Your task to perform on an android device: What's the weather going to be this weekend? Image 0: 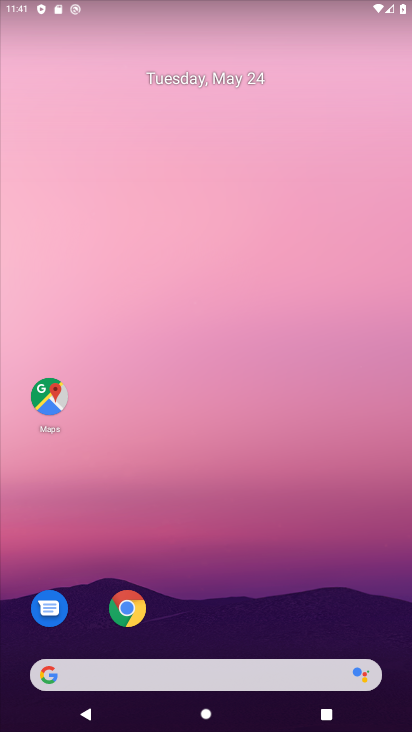
Step 0: drag from (0, 500) to (381, 437)
Your task to perform on an android device: What's the weather going to be this weekend? Image 1: 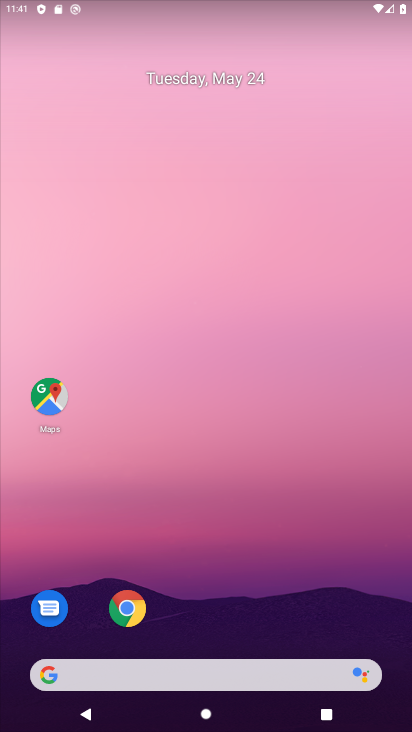
Step 1: drag from (0, 493) to (386, 252)
Your task to perform on an android device: What's the weather going to be this weekend? Image 2: 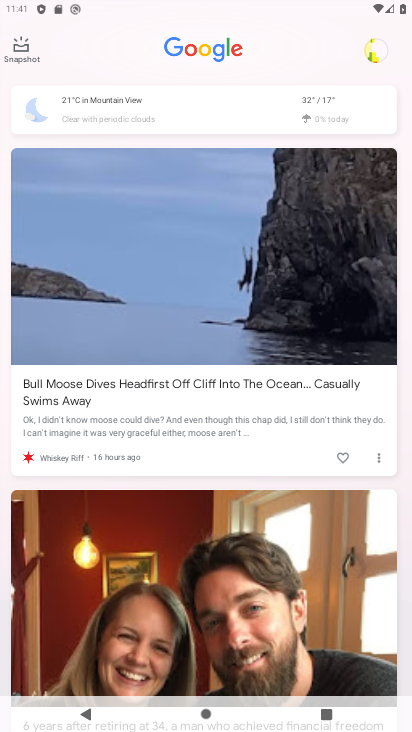
Step 2: click (284, 103)
Your task to perform on an android device: What's the weather going to be this weekend? Image 3: 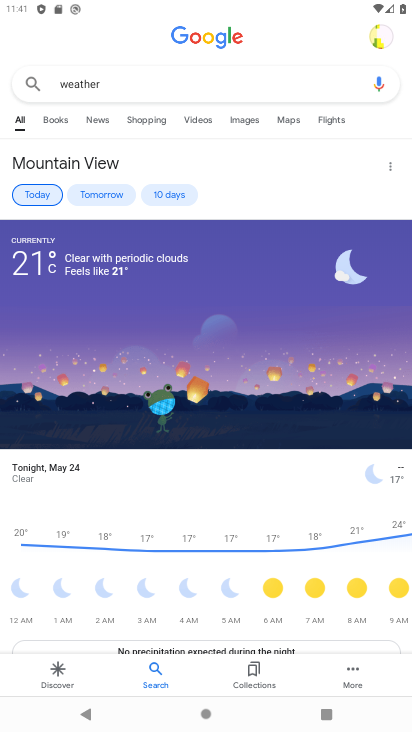
Step 3: drag from (116, 630) to (209, 296)
Your task to perform on an android device: What's the weather going to be this weekend? Image 4: 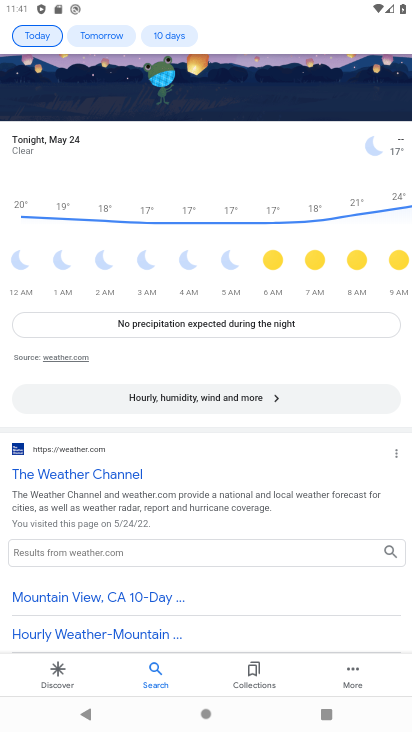
Step 4: click (117, 476)
Your task to perform on an android device: What's the weather going to be this weekend? Image 5: 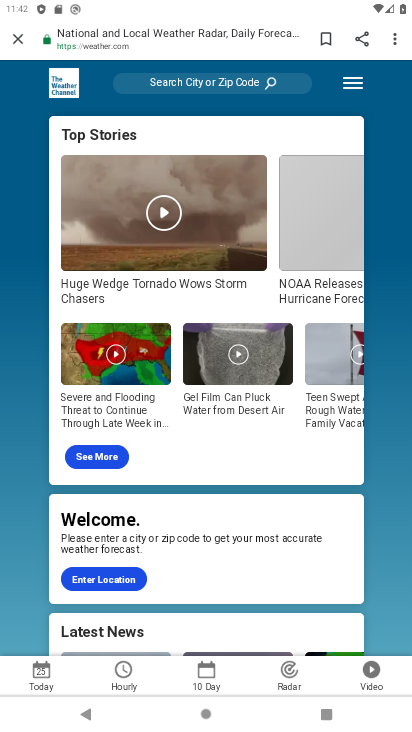
Step 5: click (211, 669)
Your task to perform on an android device: What's the weather going to be this weekend? Image 6: 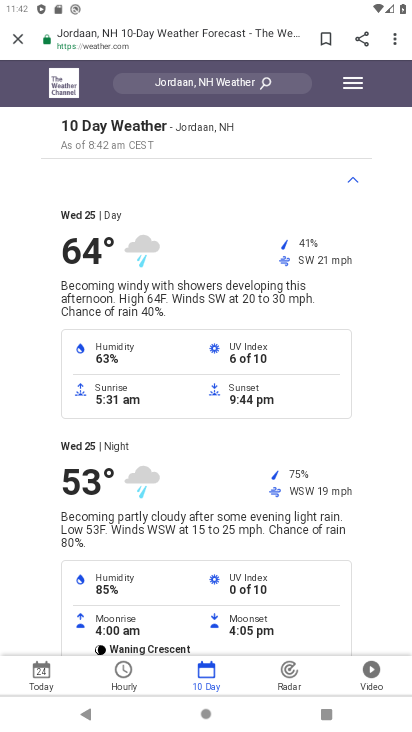
Step 6: drag from (141, 634) to (230, 268)
Your task to perform on an android device: What's the weather going to be this weekend? Image 7: 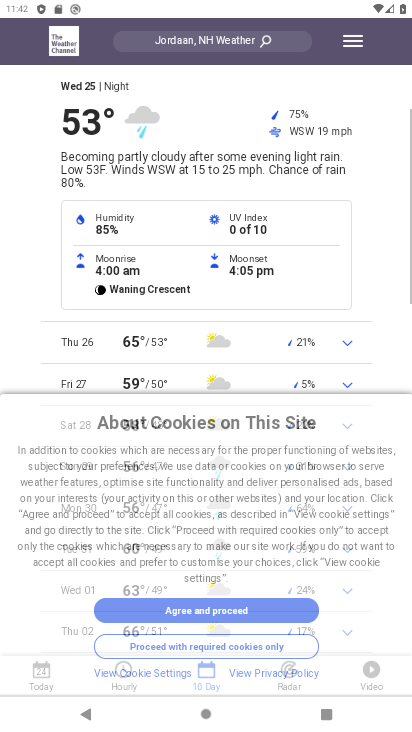
Step 7: click (228, 618)
Your task to perform on an android device: What's the weather going to be this weekend? Image 8: 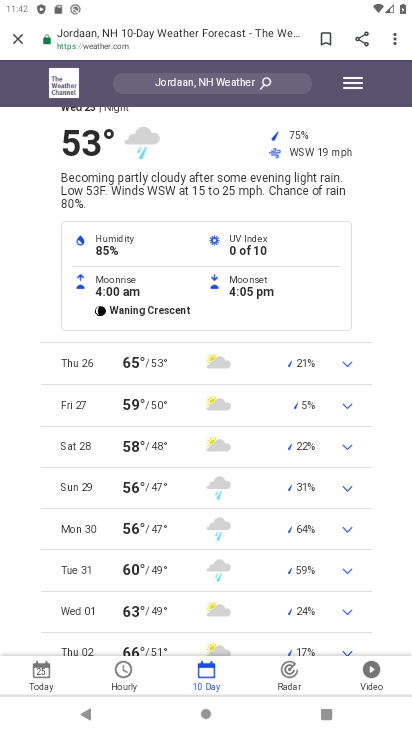
Step 8: task complete